Your task to perform on an android device: open chrome privacy settings Image 0: 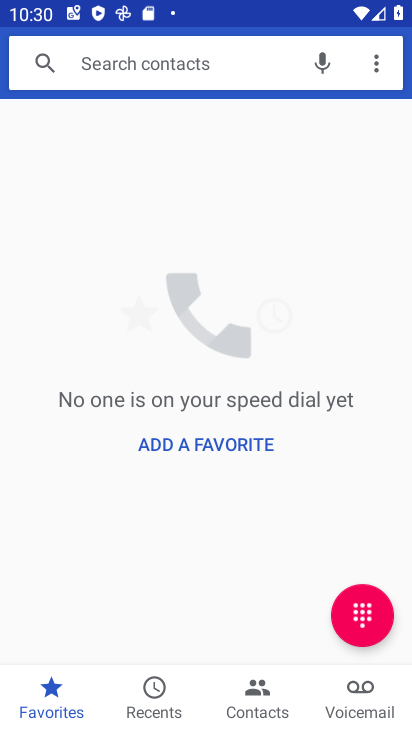
Step 0: press home button
Your task to perform on an android device: open chrome privacy settings Image 1: 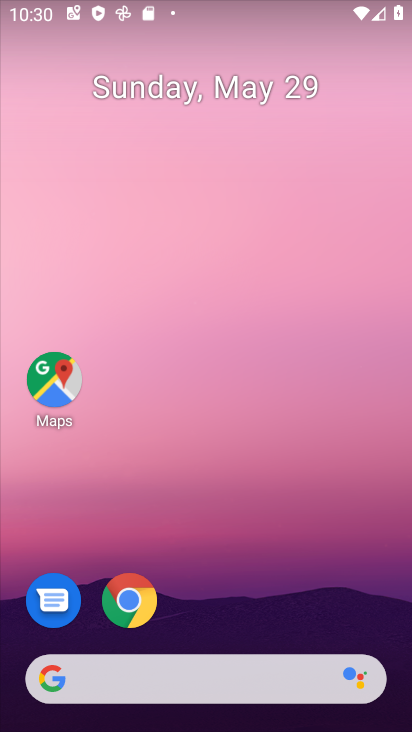
Step 1: drag from (227, 724) to (186, 145)
Your task to perform on an android device: open chrome privacy settings Image 2: 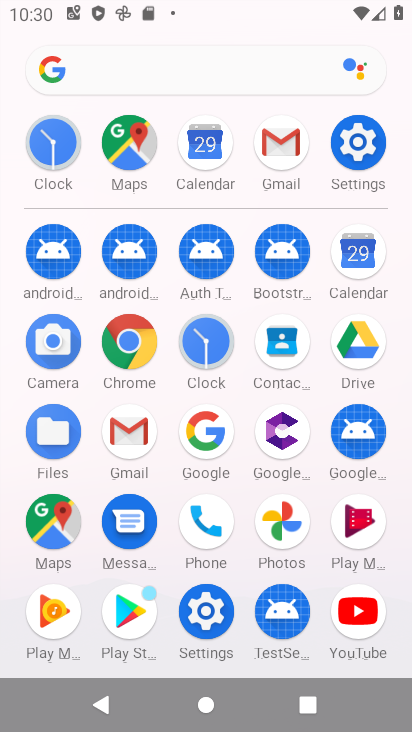
Step 2: click (128, 345)
Your task to perform on an android device: open chrome privacy settings Image 3: 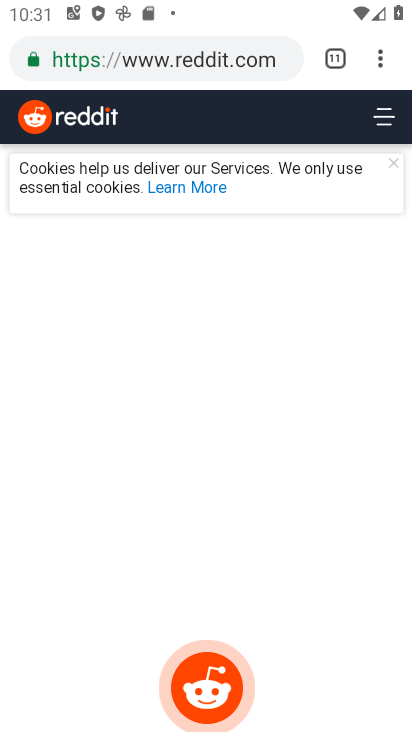
Step 3: click (380, 67)
Your task to perform on an android device: open chrome privacy settings Image 4: 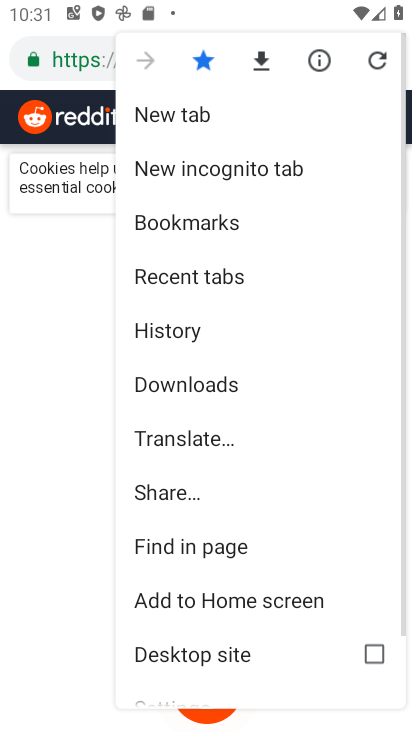
Step 4: drag from (216, 618) to (179, 150)
Your task to perform on an android device: open chrome privacy settings Image 5: 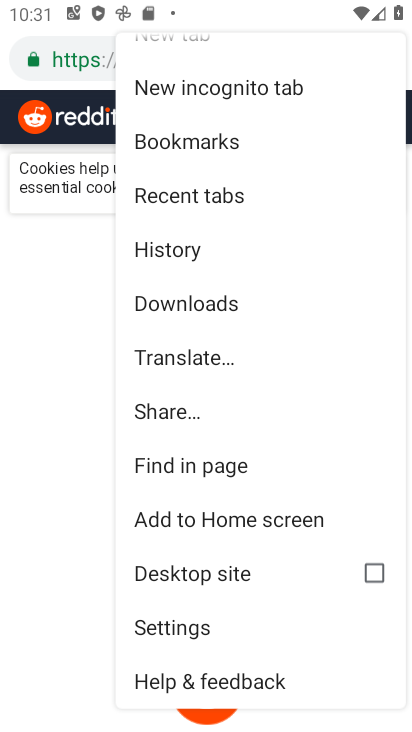
Step 5: click (195, 624)
Your task to perform on an android device: open chrome privacy settings Image 6: 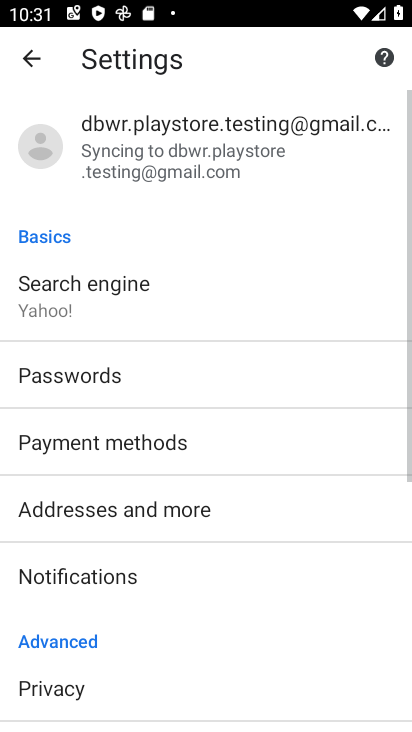
Step 6: drag from (99, 672) to (84, 295)
Your task to perform on an android device: open chrome privacy settings Image 7: 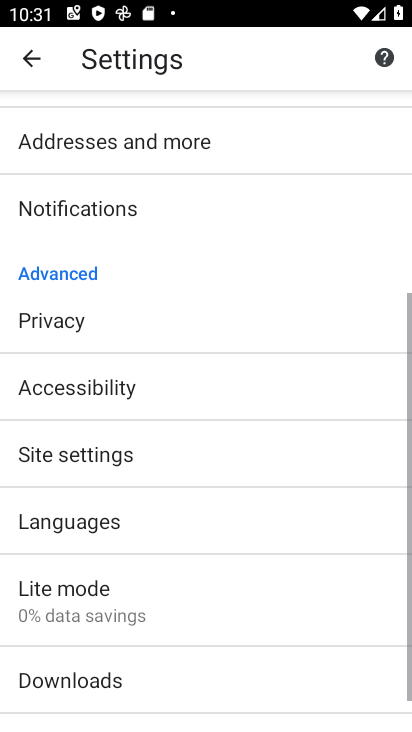
Step 7: click (69, 322)
Your task to perform on an android device: open chrome privacy settings Image 8: 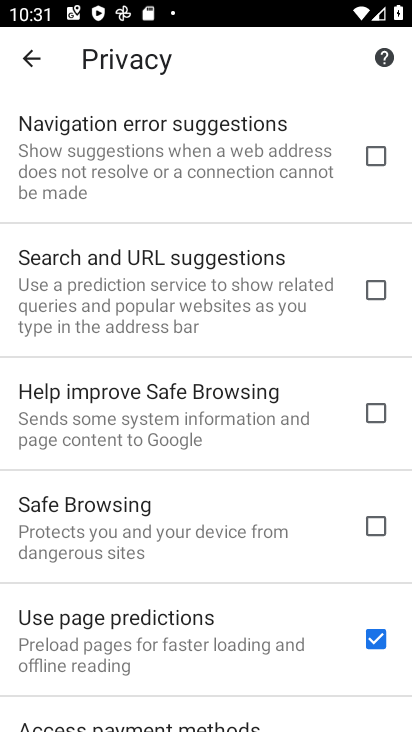
Step 8: task complete